Your task to perform on an android device: Show me productivity apps on the Play Store Image 0: 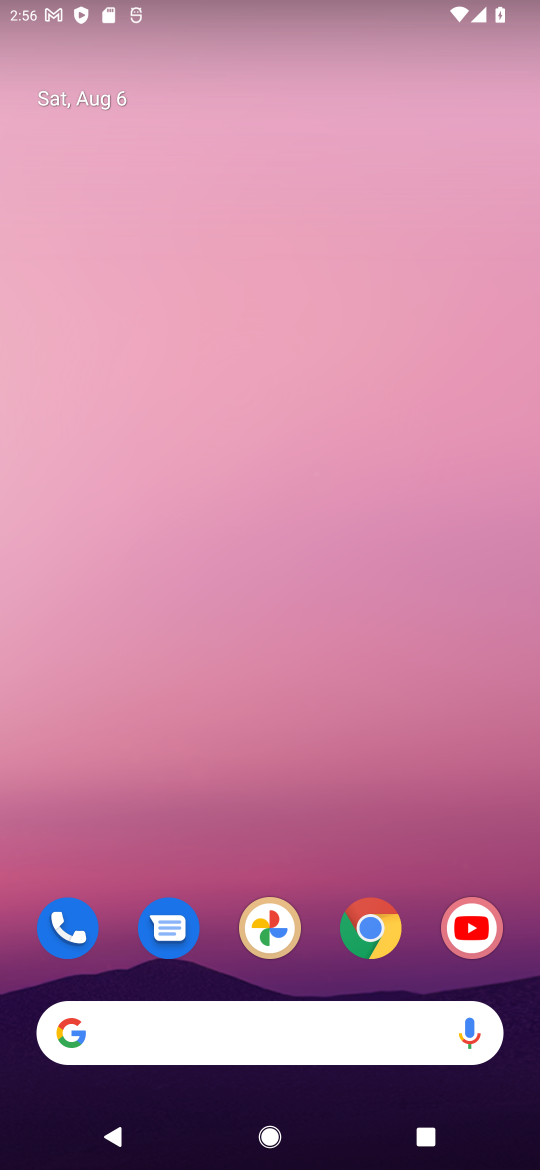
Step 0: click (369, 39)
Your task to perform on an android device: Show me productivity apps on the Play Store Image 1: 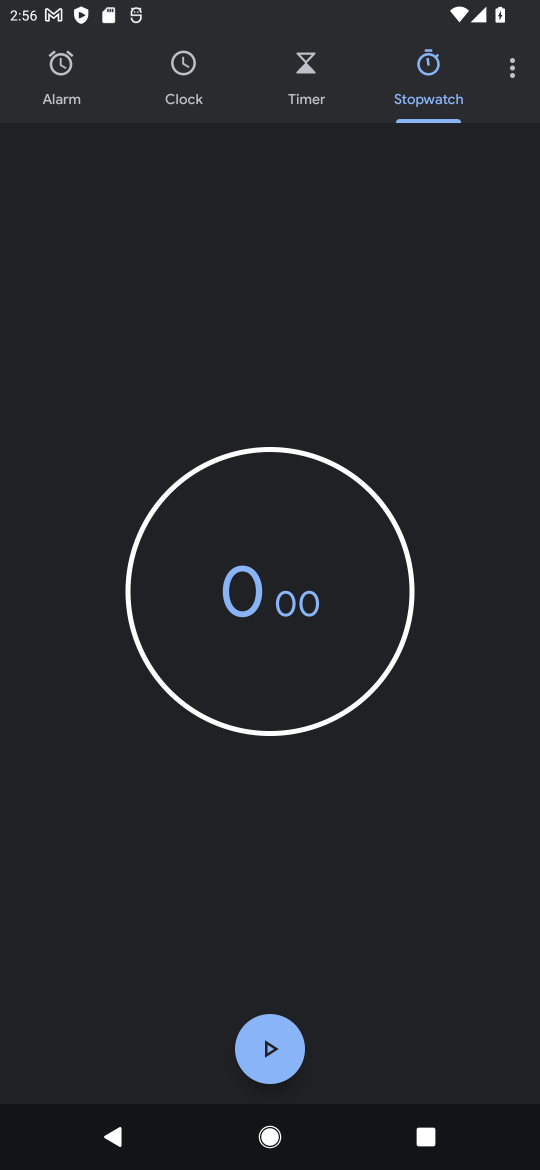
Step 1: press home button
Your task to perform on an android device: Show me productivity apps on the Play Store Image 2: 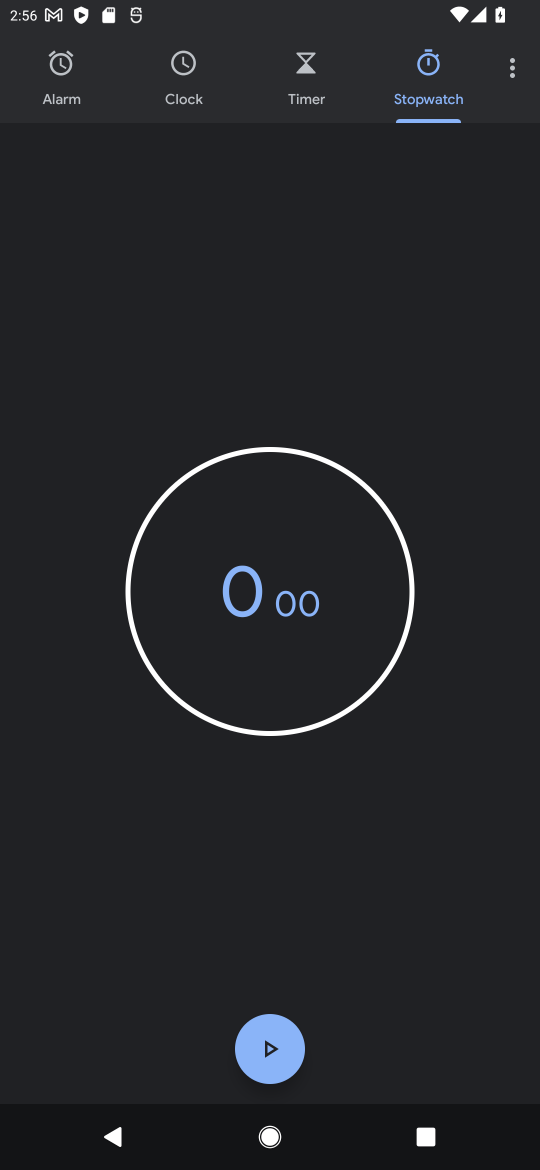
Step 2: press home button
Your task to perform on an android device: Show me productivity apps on the Play Store Image 3: 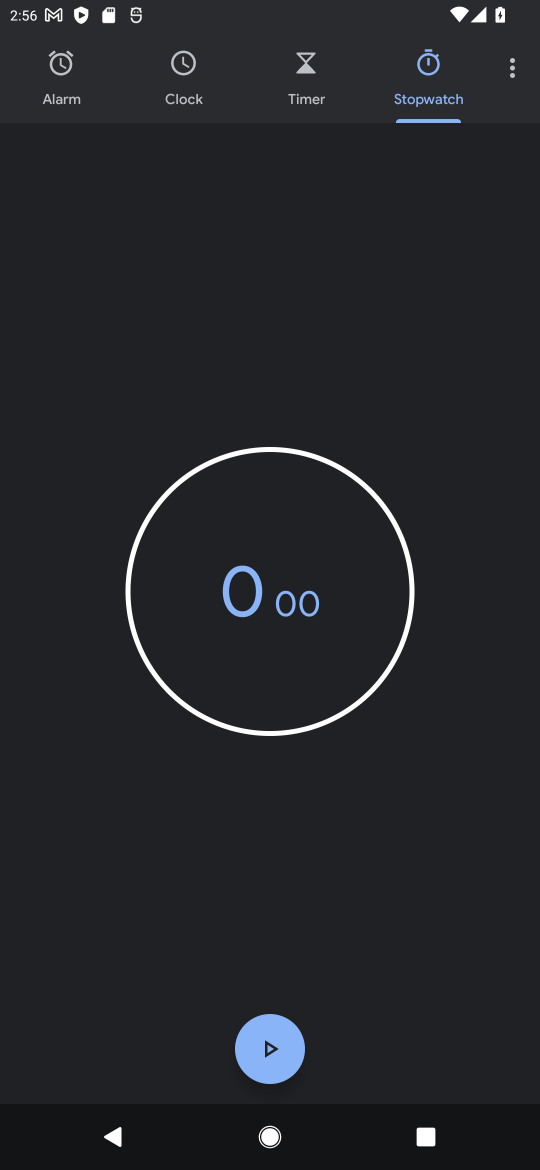
Step 3: press home button
Your task to perform on an android device: Show me productivity apps on the Play Store Image 4: 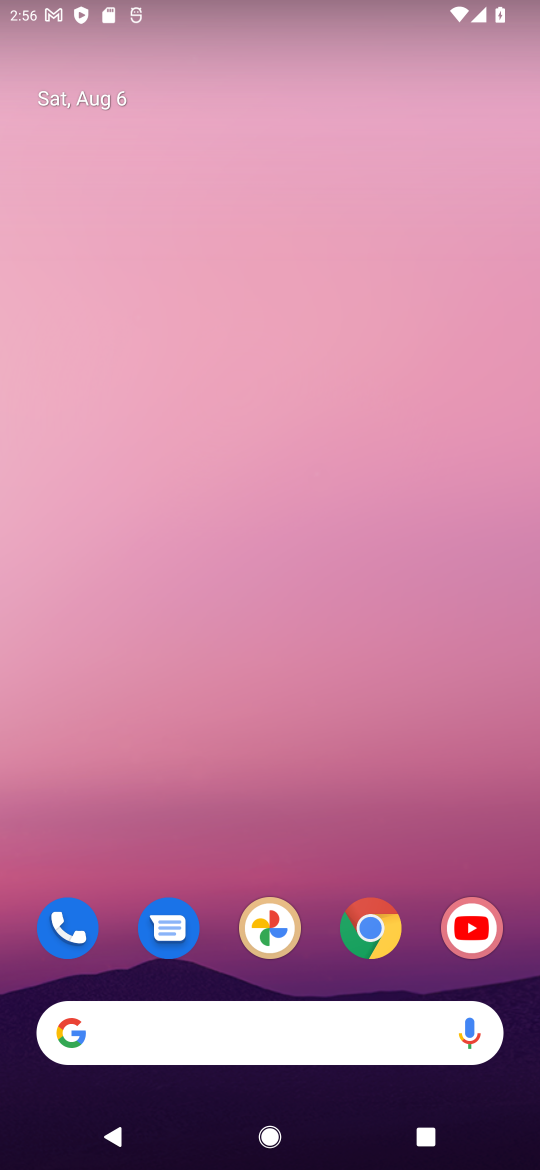
Step 4: drag from (221, 974) to (312, 350)
Your task to perform on an android device: Show me productivity apps on the Play Store Image 5: 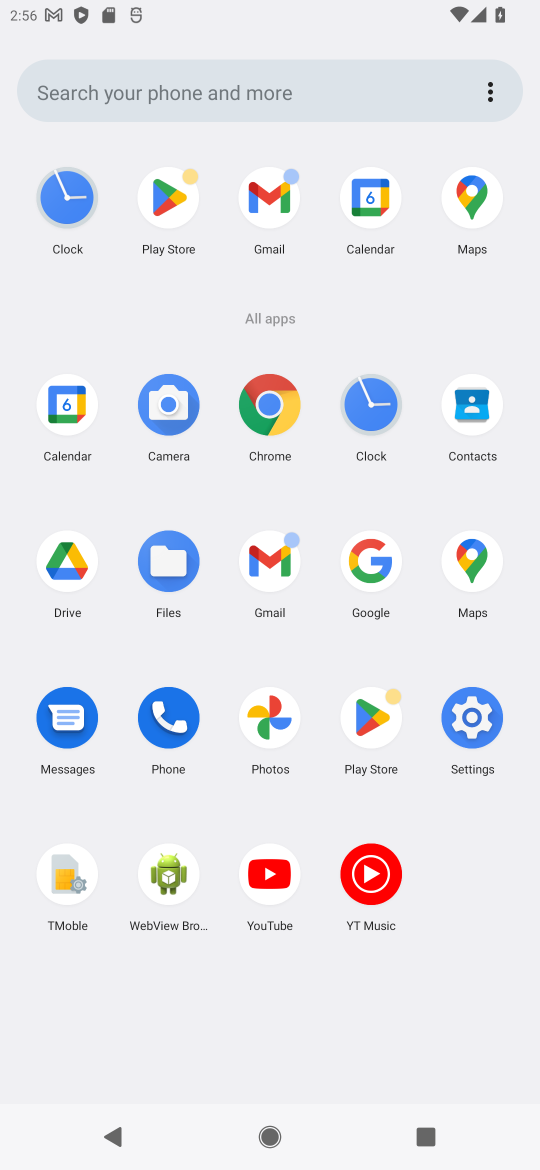
Step 5: click (366, 715)
Your task to perform on an android device: Show me productivity apps on the Play Store Image 6: 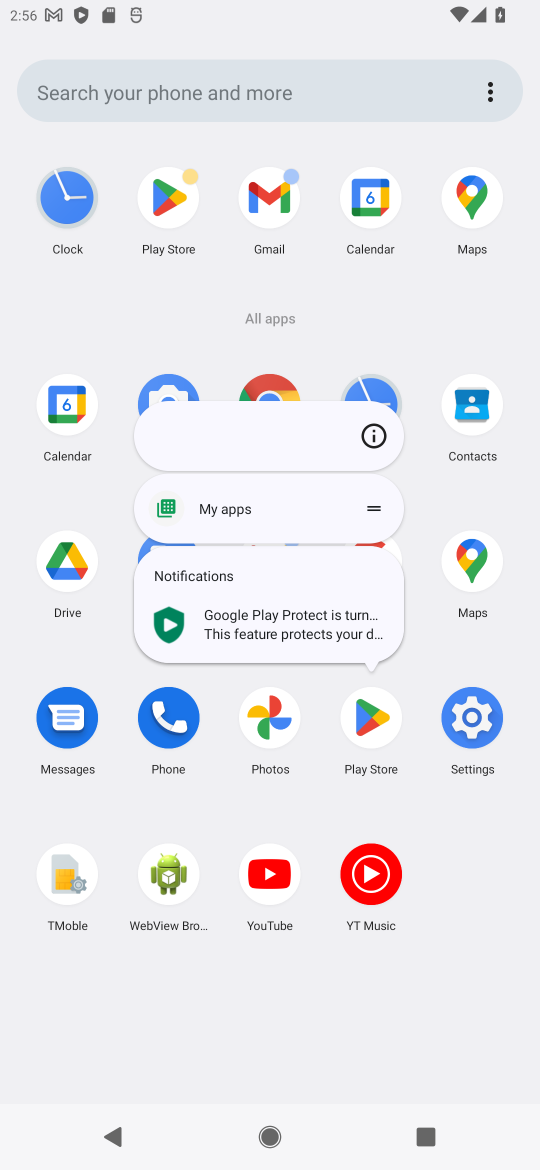
Step 6: click (373, 418)
Your task to perform on an android device: Show me productivity apps on the Play Store Image 7: 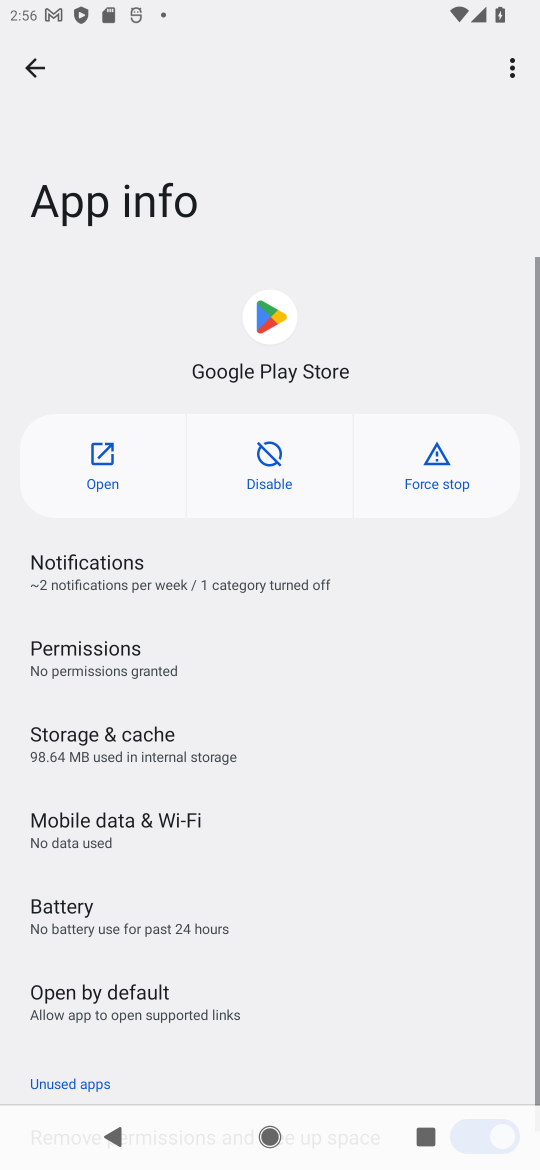
Step 7: click (101, 444)
Your task to perform on an android device: Show me productivity apps on the Play Store Image 8: 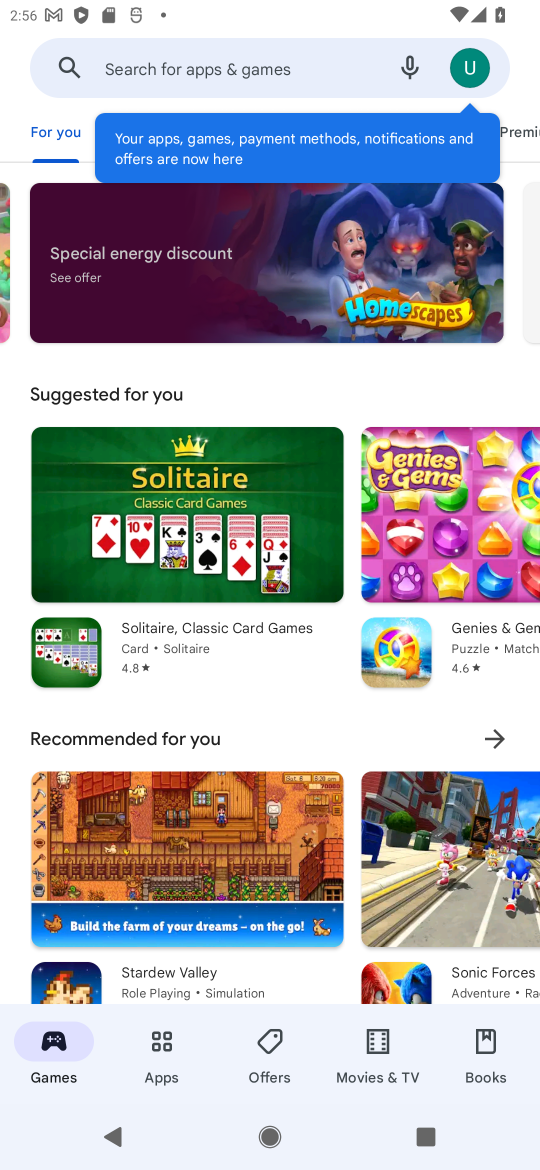
Step 8: task complete